Your task to perform on an android device: Open my contact list Image 0: 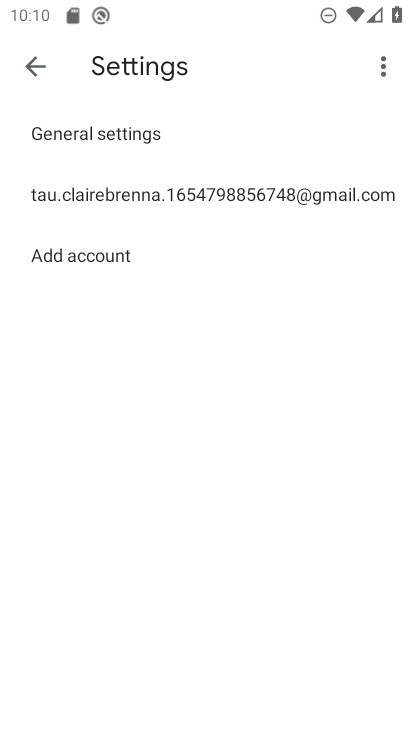
Step 0: press home button
Your task to perform on an android device: Open my contact list Image 1: 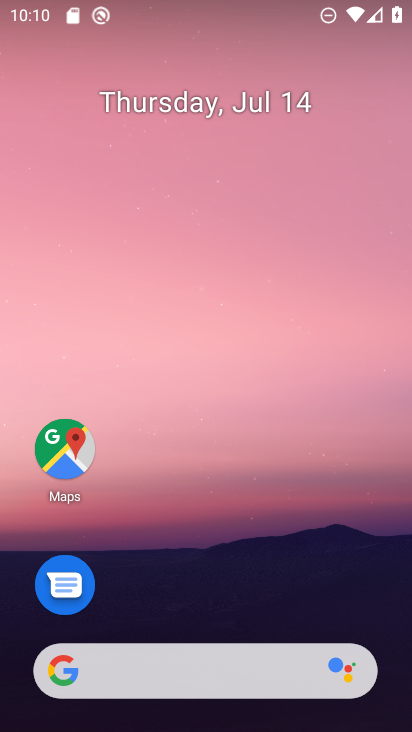
Step 1: drag from (182, 637) to (26, 19)
Your task to perform on an android device: Open my contact list Image 2: 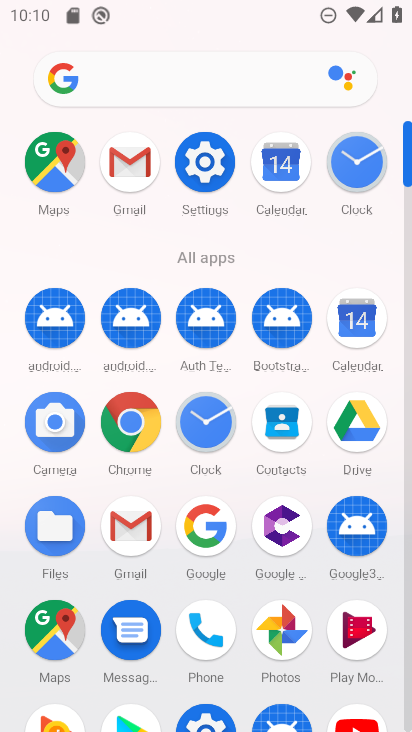
Step 2: click (226, 648)
Your task to perform on an android device: Open my contact list Image 3: 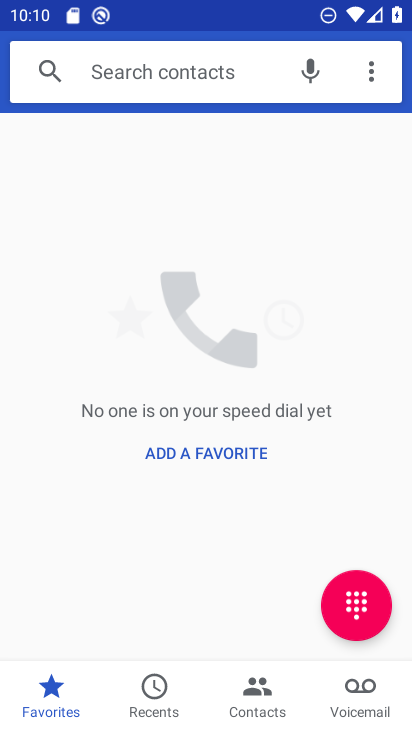
Step 3: click (258, 719)
Your task to perform on an android device: Open my contact list Image 4: 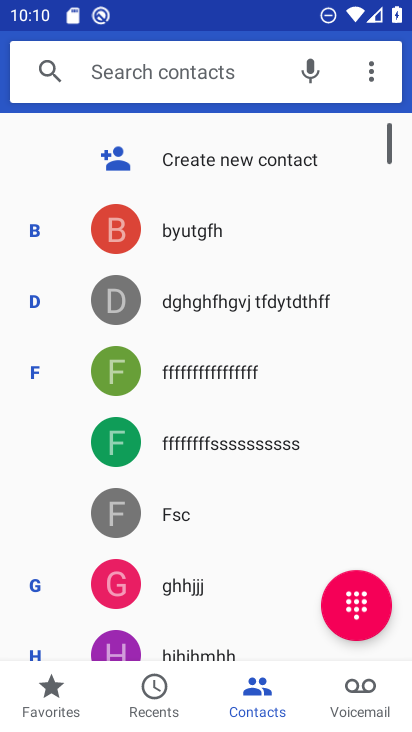
Step 4: task complete